Your task to perform on an android device: delete browsing data in the chrome app Image 0: 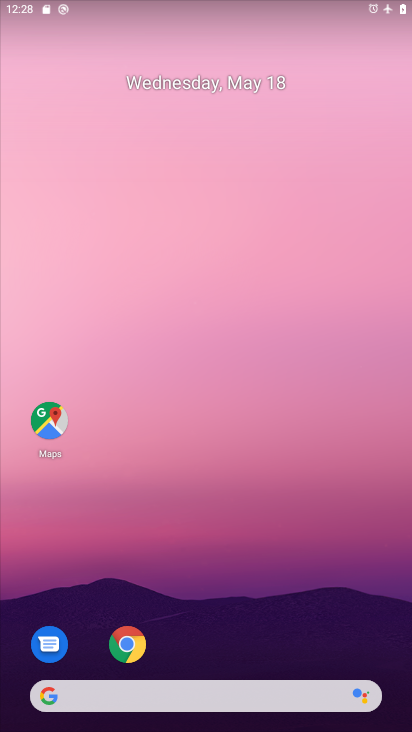
Step 0: press home button
Your task to perform on an android device: delete browsing data in the chrome app Image 1: 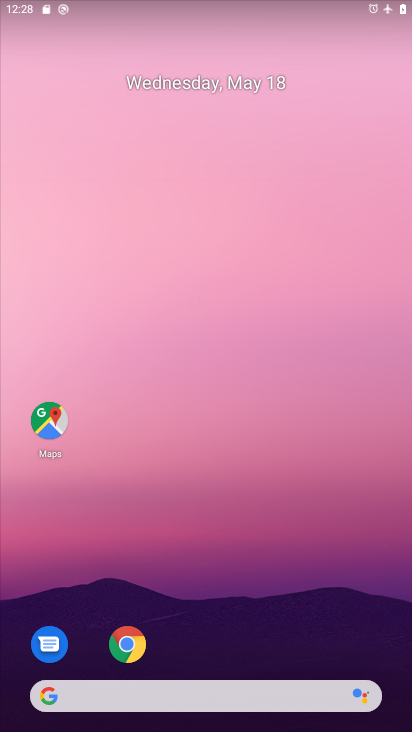
Step 1: drag from (234, 648) to (341, 76)
Your task to perform on an android device: delete browsing data in the chrome app Image 2: 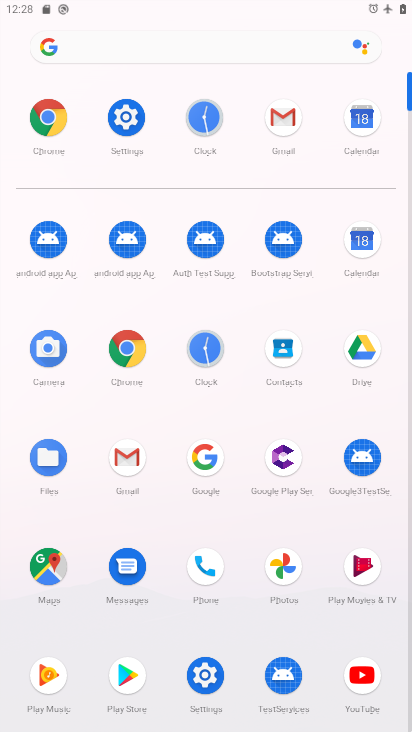
Step 2: click (48, 112)
Your task to perform on an android device: delete browsing data in the chrome app Image 3: 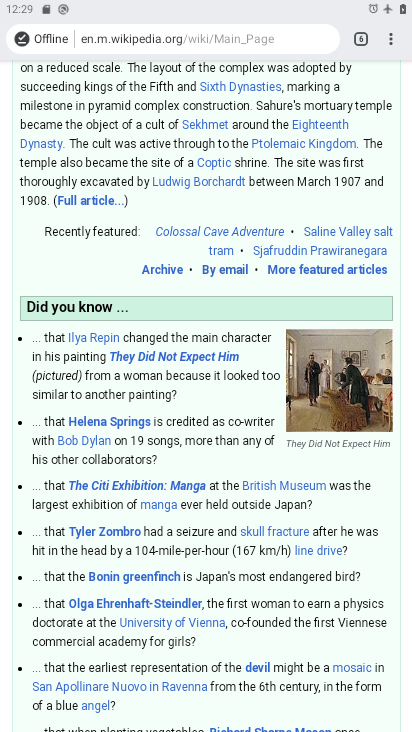
Step 3: click (391, 35)
Your task to perform on an android device: delete browsing data in the chrome app Image 4: 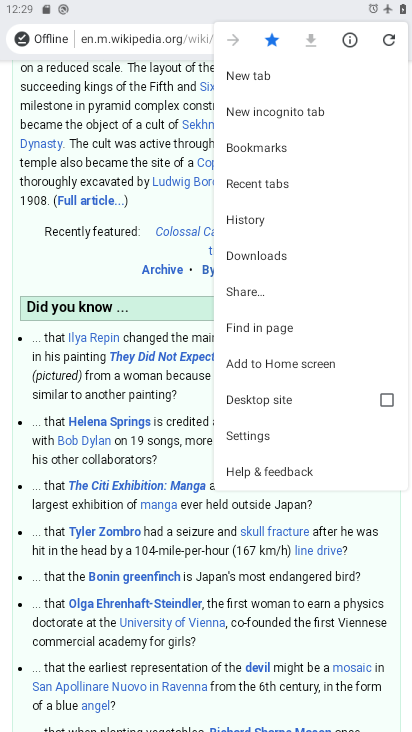
Step 4: click (268, 216)
Your task to perform on an android device: delete browsing data in the chrome app Image 5: 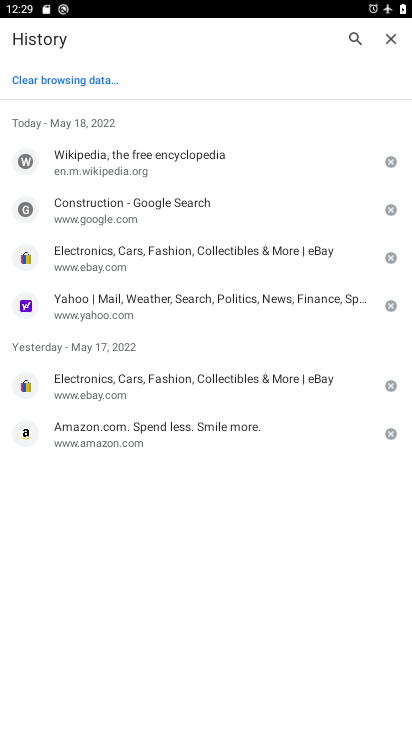
Step 5: click (77, 74)
Your task to perform on an android device: delete browsing data in the chrome app Image 6: 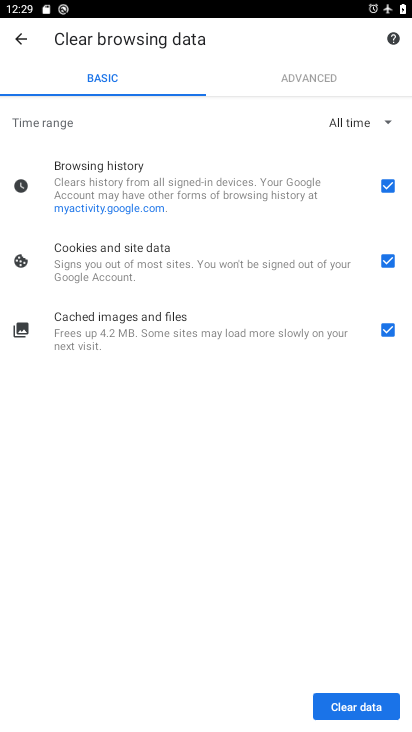
Step 6: click (357, 703)
Your task to perform on an android device: delete browsing data in the chrome app Image 7: 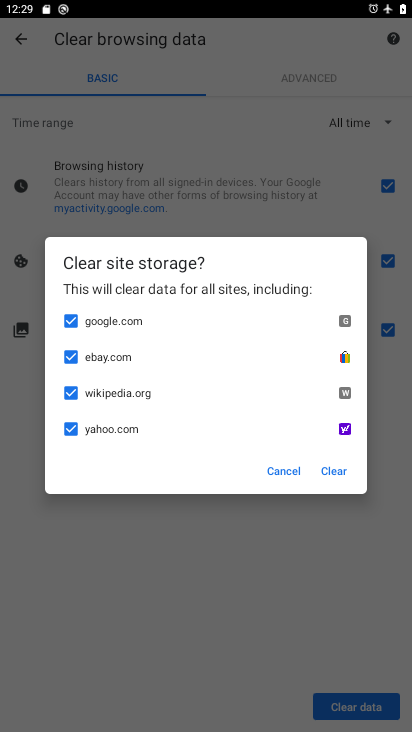
Step 7: click (343, 466)
Your task to perform on an android device: delete browsing data in the chrome app Image 8: 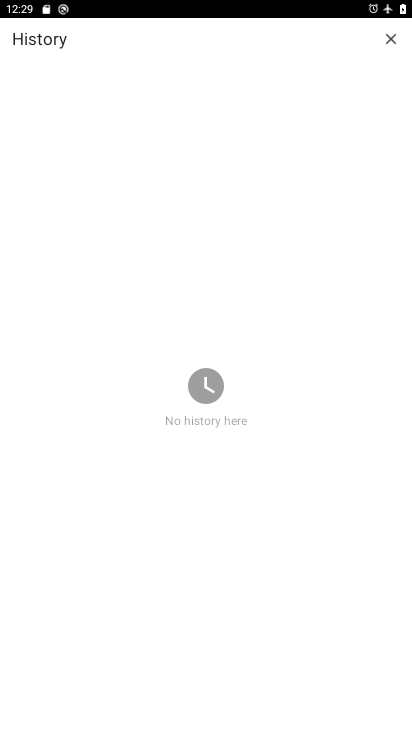
Step 8: task complete